Your task to perform on an android device: Open Yahoo.com Image 0: 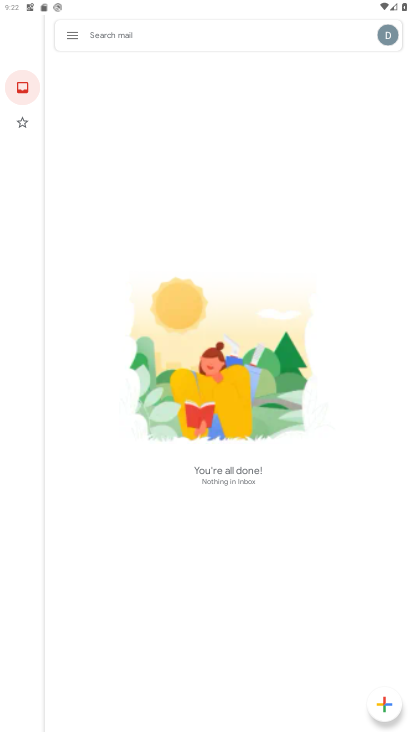
Step 0: press home button
Your task to perform on an android device: Open Yahoo.com Image 1: 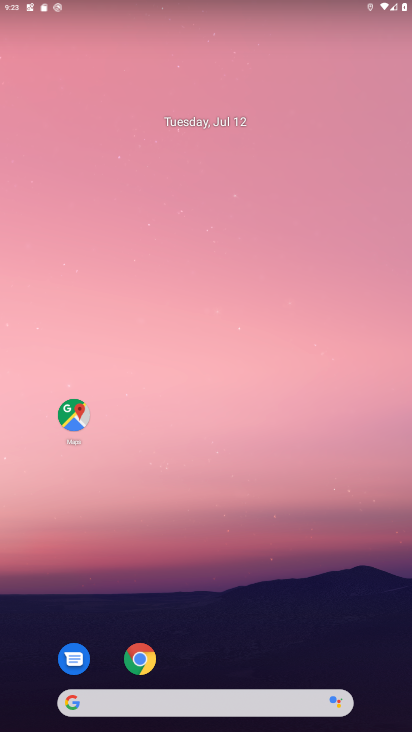
Step 1: drag from (258, 636) to (206, 8)
Your task to perform on an android device: Open Yahoo.com Image 2: 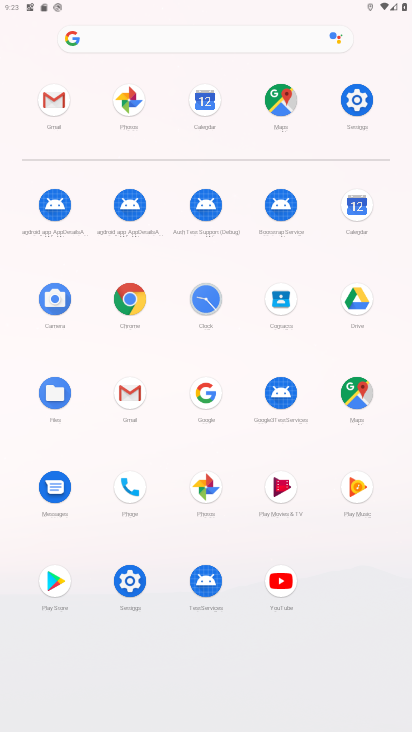
Step 2: click (129, 284)
Your task to perform on an android device: Open Yahoo.com Image 3: 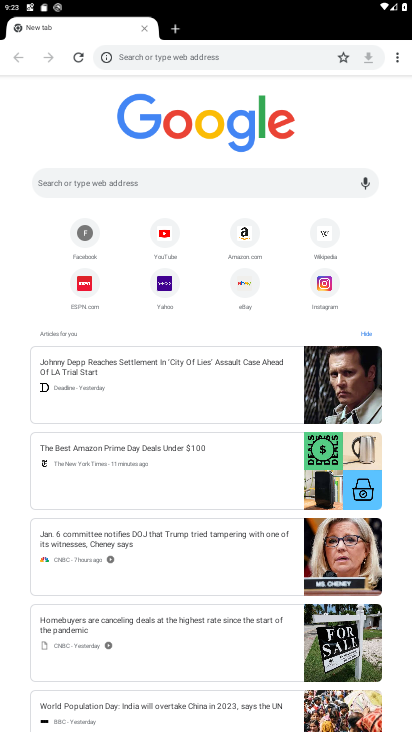
Step 3: click (157, 59)
Your task to perform on an android device: Open Yahoo.com Image 4: 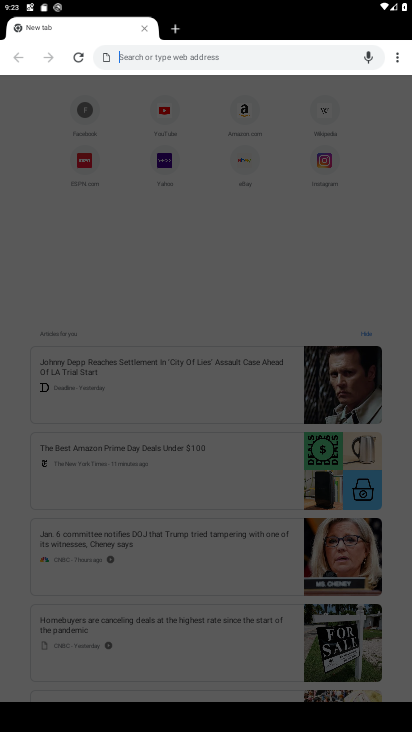
Step 4: type "Yahoo.com"
Your task to perform on an android device: Open Yahoo.com Image 5: 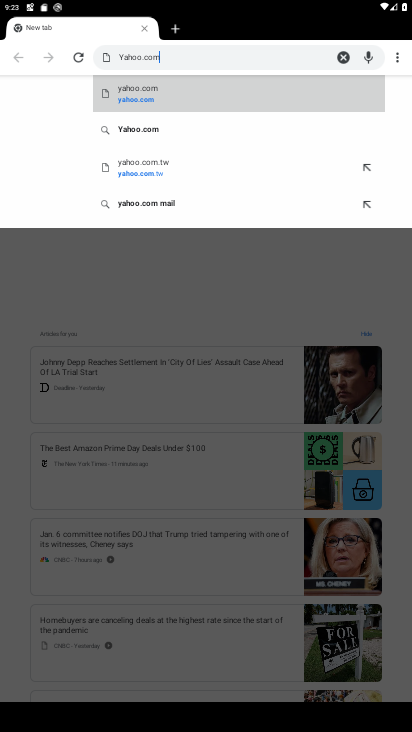
Step 5: click (119, 102)
Your task to perform on an android device: Open Yahoo.com Image 6: 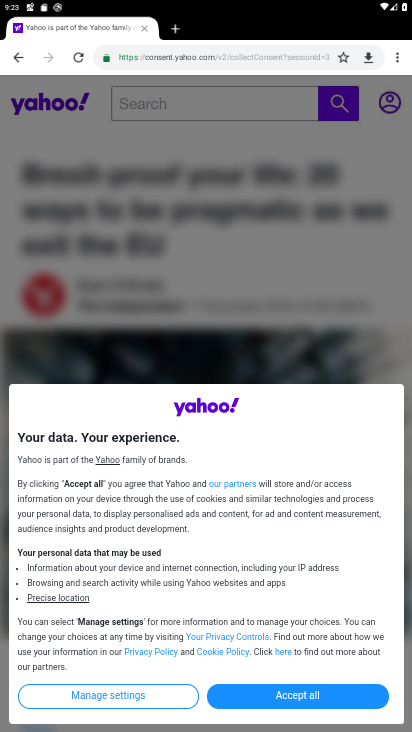
Step 6: click (254, 693)
Your task to perform on an android device: Open Yahoo.com Image 7: 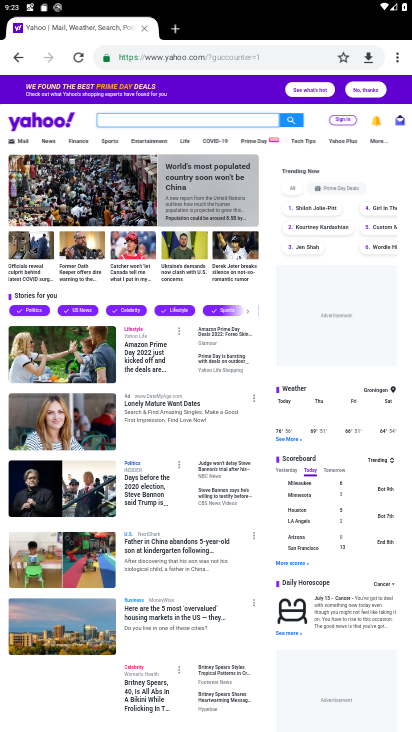
Step 7: task complete